Your task to perform on an android device: turn on improve location accuracy Image 0: 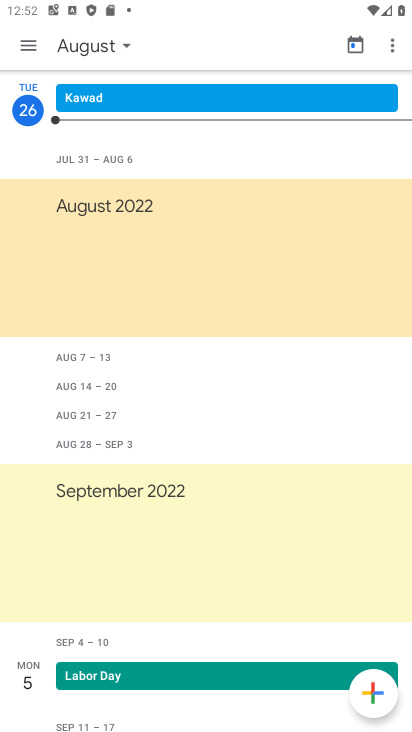
Step 0: press home button
Your task to perform on an android device: turn on improve location accuracy Image 1: 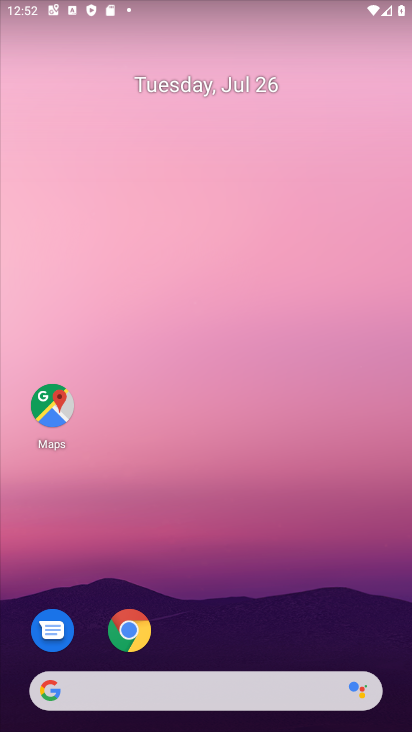
Step 1: drag from (369, 640) to (314, 159)
Your task to perform on an android device: turn on improve location accuracy Image 2: 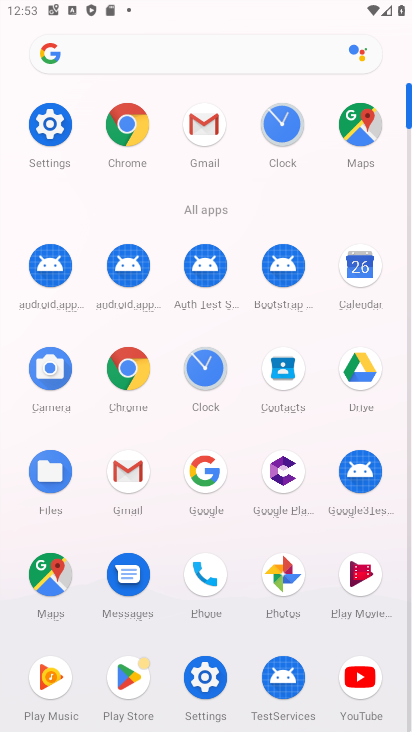
Step 2: click (207, 677)
Your task to perform on an android device: turn on improve location accuracy Image 3: 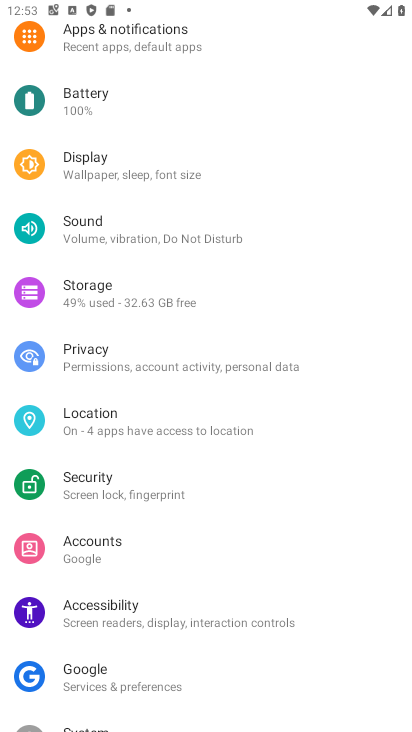
Step 3: click (94, 422)
Your task to perform on an android device: turn on improve location accuracy Image 4: 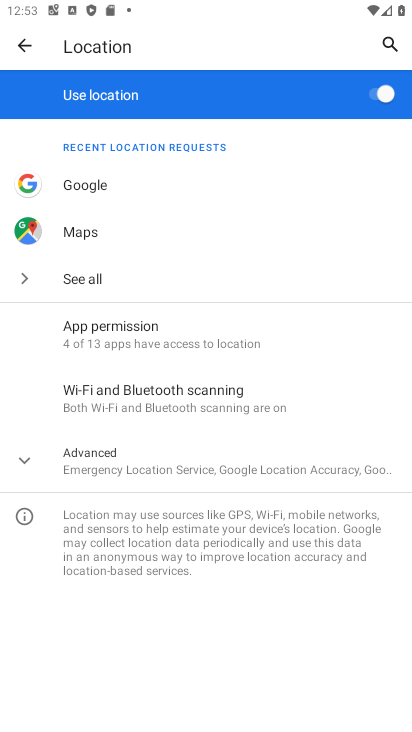
Step 4: click (20, 454)
Your task to perform on an android device: turn on improve location accuracy Image 5: 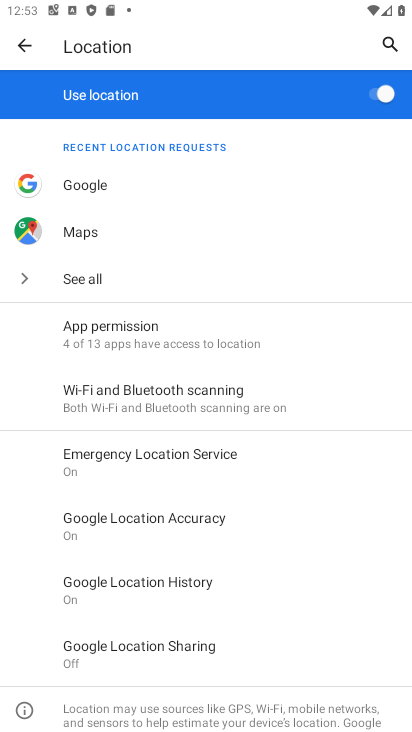
Step 5: click (150, 513)
Your task to perform on an android device: turn on improve location accuracy Image 6: 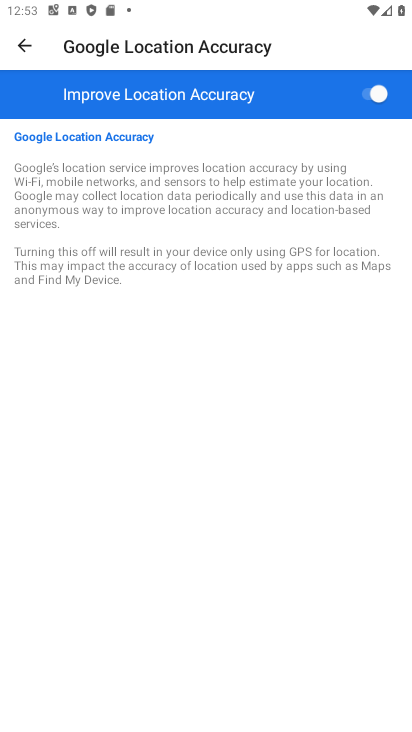
Step 6: task complete